Your task to perform on an android device: turn on priority inbox in the gmail app Image 0: 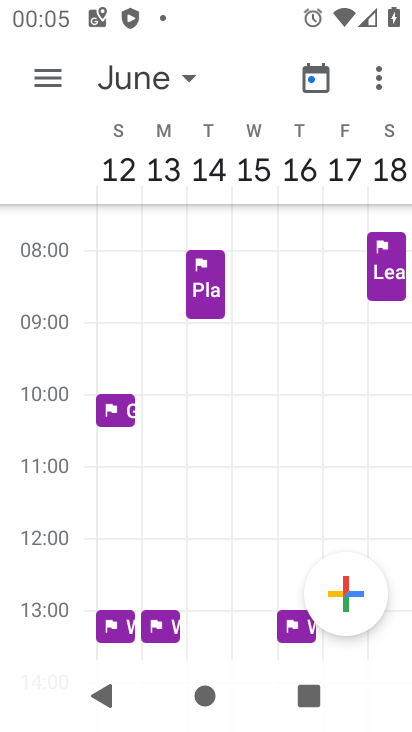
Step 0: press home button
Your task to perform on an android device: turn on priority inbox in the gmail app Image 1: 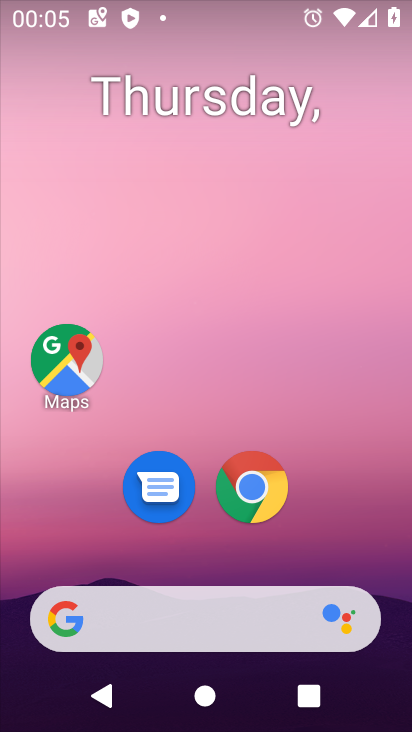
Step 1: drag from (338, 564) to (350, 0)
Your task to perform on an android device: turn on priority inbox in the gmail app Image 2: 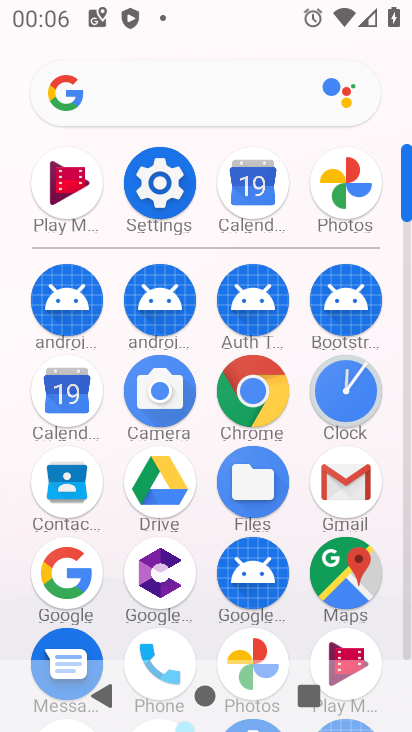
Step 2: click (330, 481)
Your task to perform on an android device: turn on priority inbox in the gmail app Image 3: 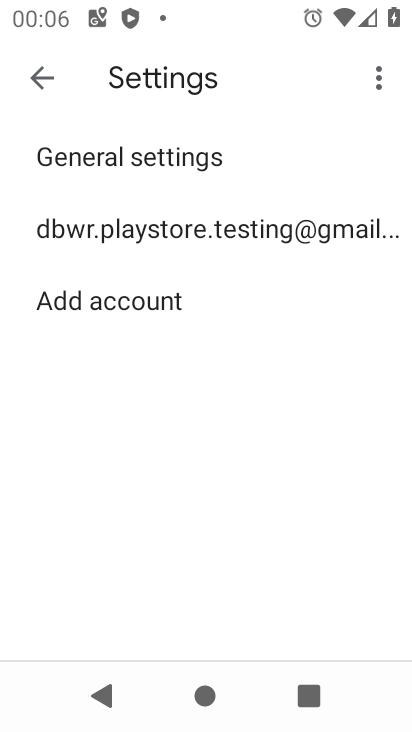
Step 3: click (87, 232)
Your task to perform on an android device: turn on priority inbox in the gmail app Image 4: 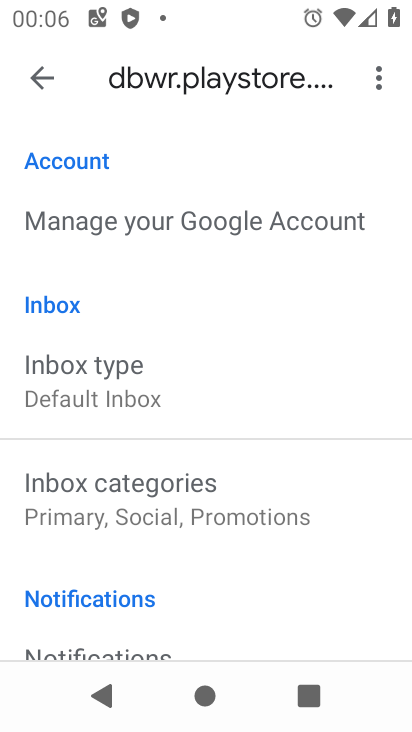
Step 4: click (69, 387)
Your task to perform on an android device: turn on priority inbox in the gmail app Image 5: 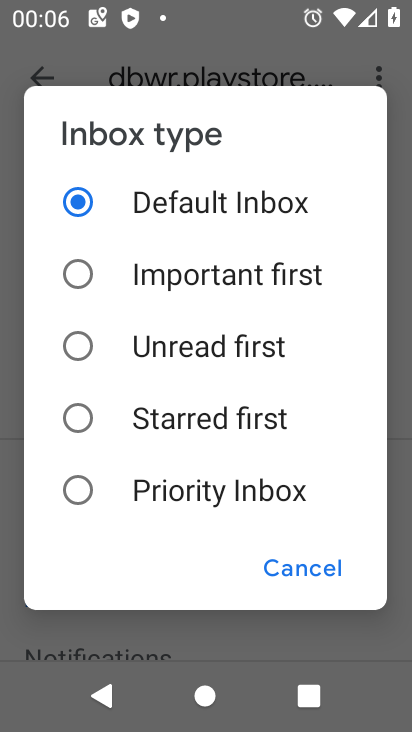
Step 5: click (86, 485)
Your task to perform on an android device: turn on priority inbox in the gmail app Image 6: 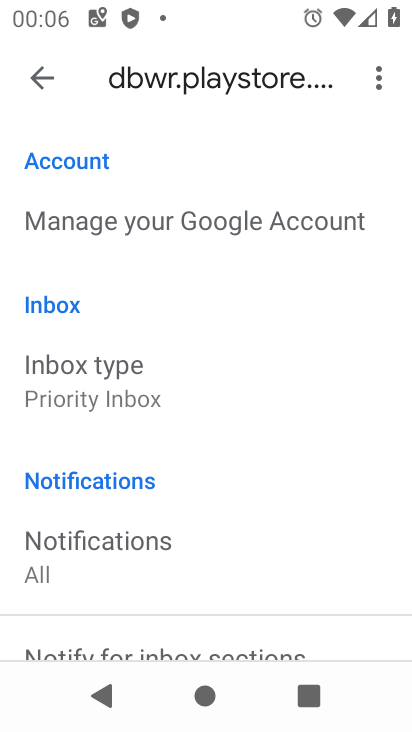
Step 6: task complete